Your task to perform on an android device: turn off improve location accuracy Image 0: 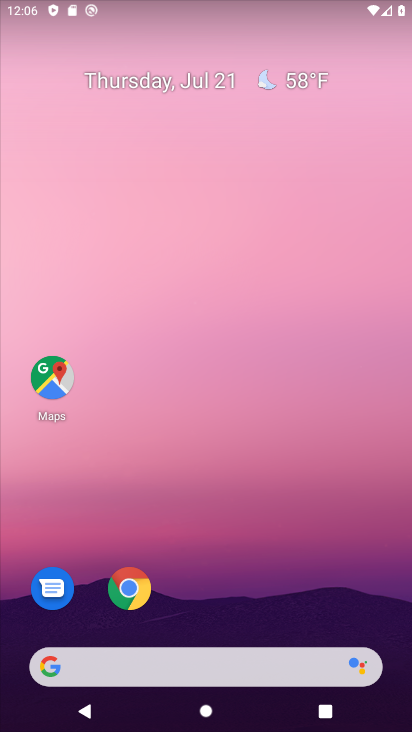
Step 0: drag from (238, 619) to (258, 131)
Your task to perform on an android device: turn off improve location accuracy Image 1: 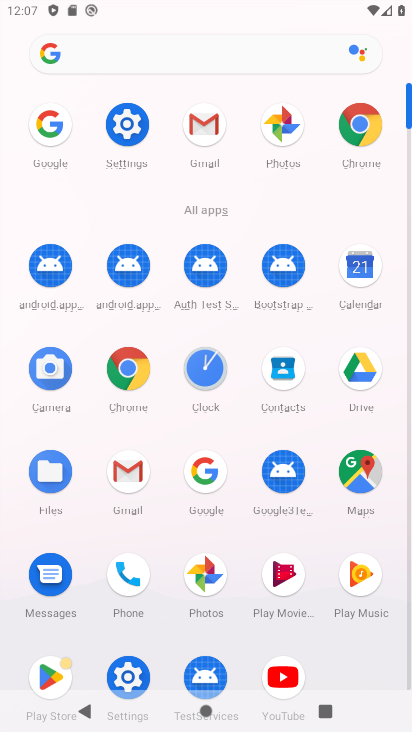
Step 1: click (140, 131)
Your task to perform on an android device: turn off improve location accuracy Image 2: 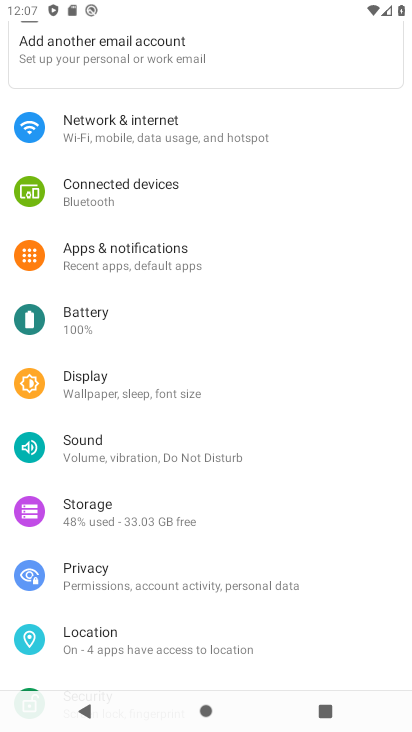
Step 2: click (162, 639)
Your task to perform on an android device: turn off improve location accuracy Image 3: 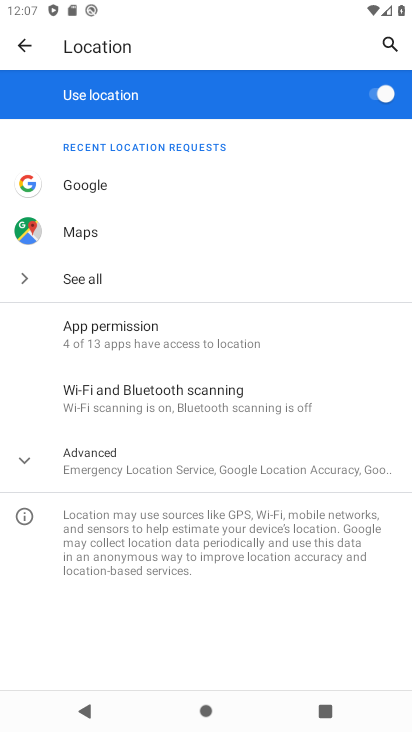
Step 3: click (263, 460)
Your task to perform on an android device: turn off improve location accuracy Image 4: 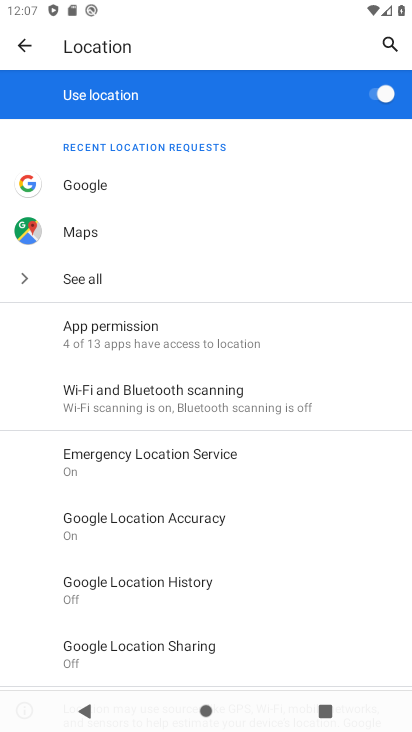
Step 4: click (195, 528)
Your task to perform on an android device: turn off improve location accuracy Image 5: 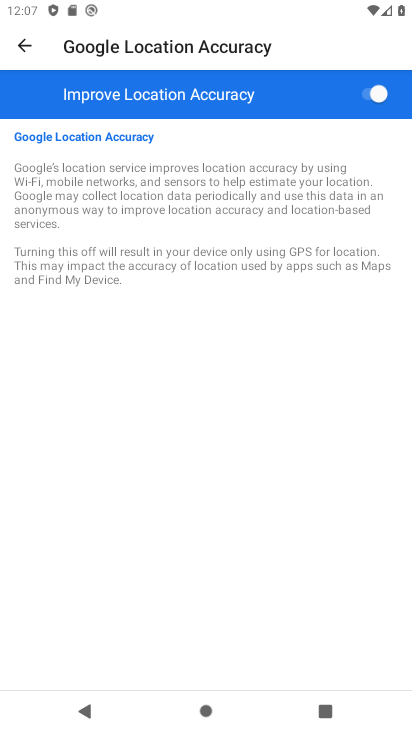
Step 5: click (377, 93)
Your task to perform on an android device: turn off improve location accuracy Image 6: 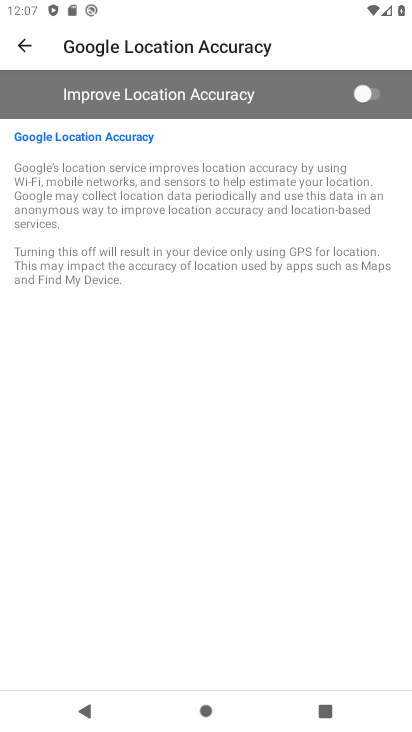
Step 6: task complete